Your task to perform on an android device: Open Yahoo.com Image 0: 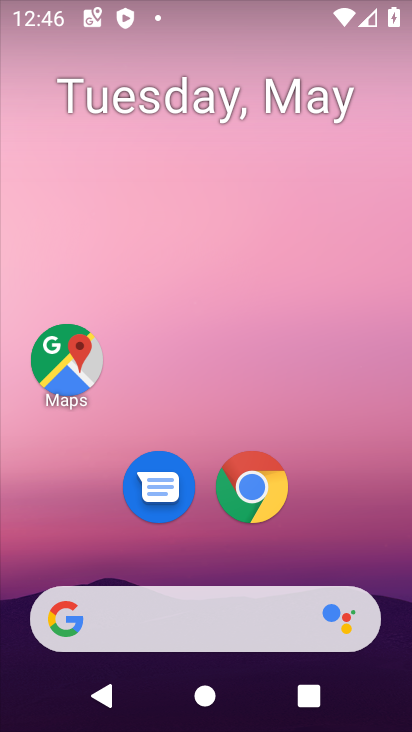
Step 0: click (253, 487)
Your task to perform on an android device: Open Yahoo.com Image 1: 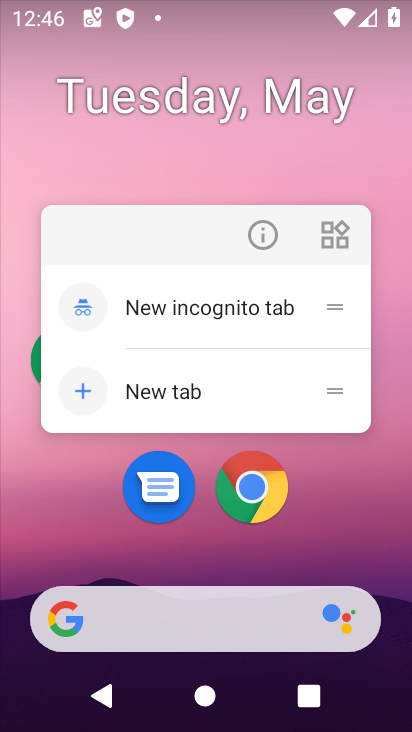
Step 1: click (257, 485)
Your task to perform on an android device: Open Yahoo.com Image 2: 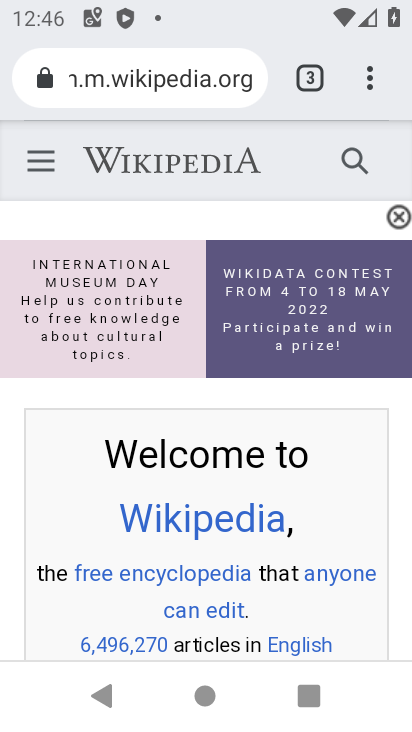
Step 2: click (299, 84)
Your task to perform on an android device: Open Yahoo.com Image 3: 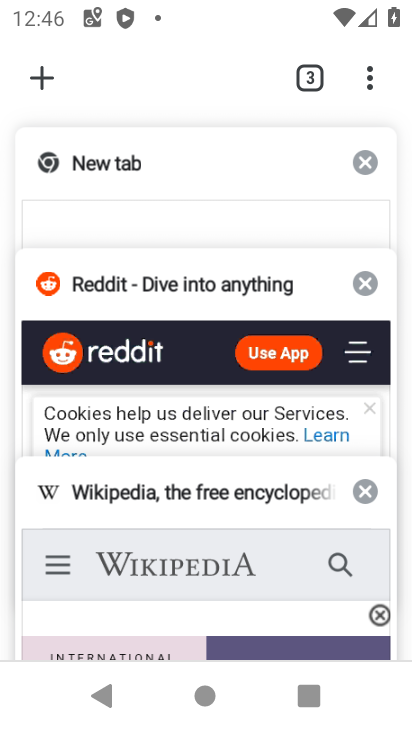
Step 3: click (70, 169)
Your task to perform on an android device: Open Yahoo.com Image 4: 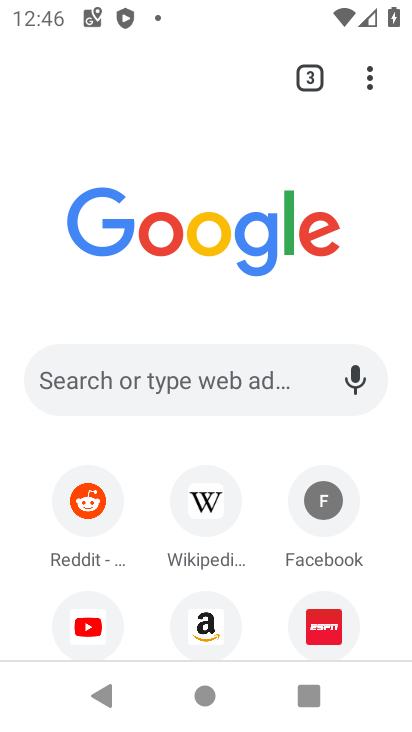
Step 4: drag from (254, 580) to (217, 571)
Your task to perform on an android device: Open Yahoo.com Image 5: 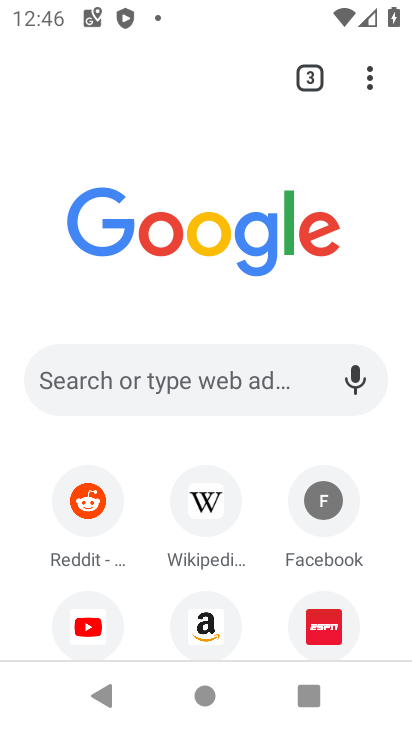
Step 5: click (210, 382)
Your task to perform on an android device: Open Yahoo.com Image 6: 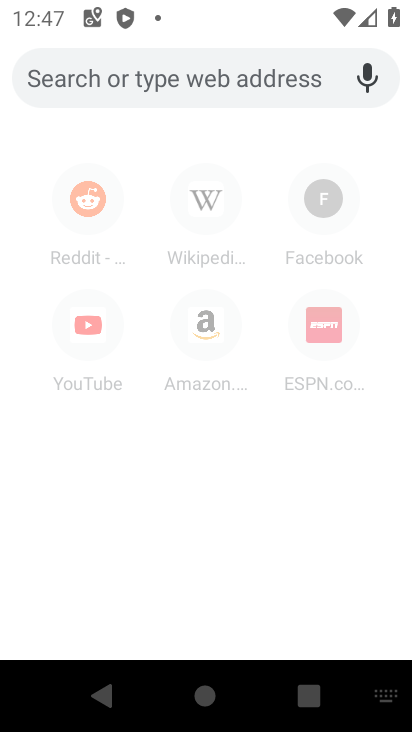
Step 6: type "yahoo.com"
Your task to perform on an android device: Open Yahoo.com Image 7: 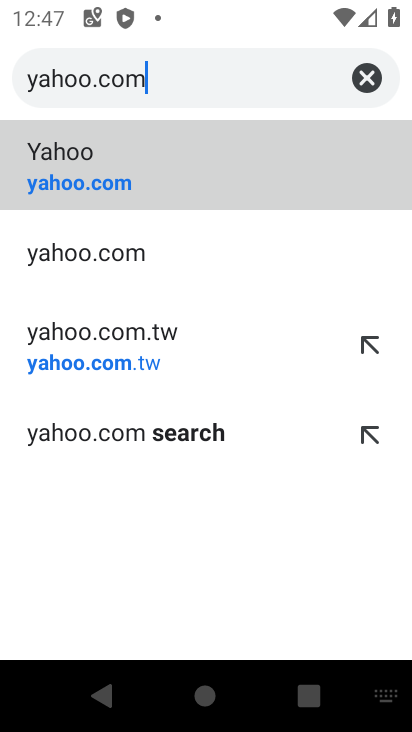
Step 7: click (148, 189)
Your task to perform on an android device: Open Yahoo.com Image 8: 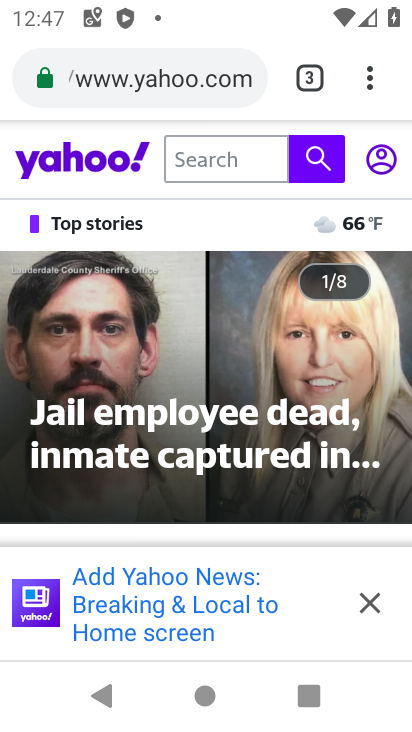
Step 8: task complete